Your task to perform on an android device: toggle show notifications on the lock screen Image 0: 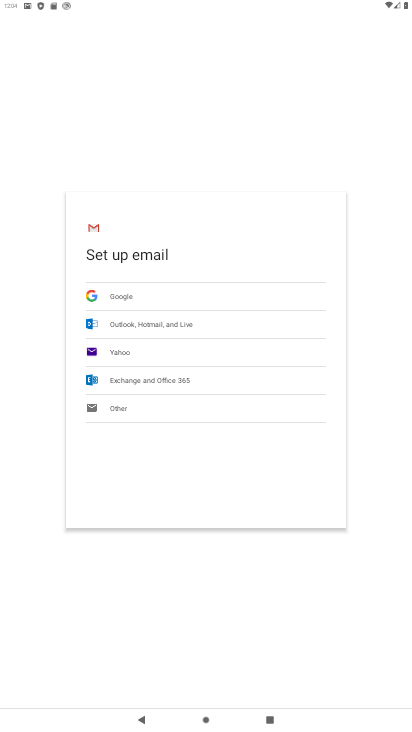
Step 0: press home button
Your task to perform on an android device: toggle show notifications on the lock screen Image 1: 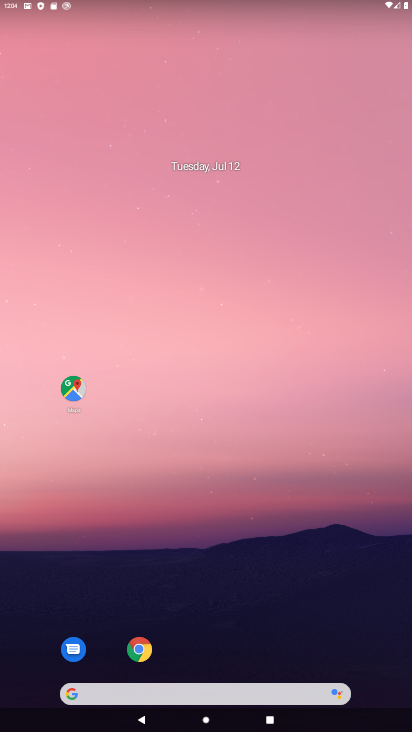
Step 1: drag from (281, 630) to (13, 185)
Your task to perform on an android device: toggle show notifications on the lock screen Image 2: 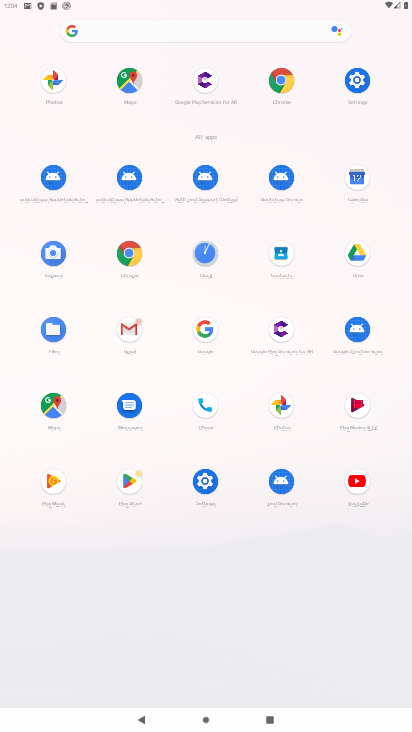
Step 2: click (352, 80)
Your task to perform on an android device: toggle show notifications on the lock screen Image 3: 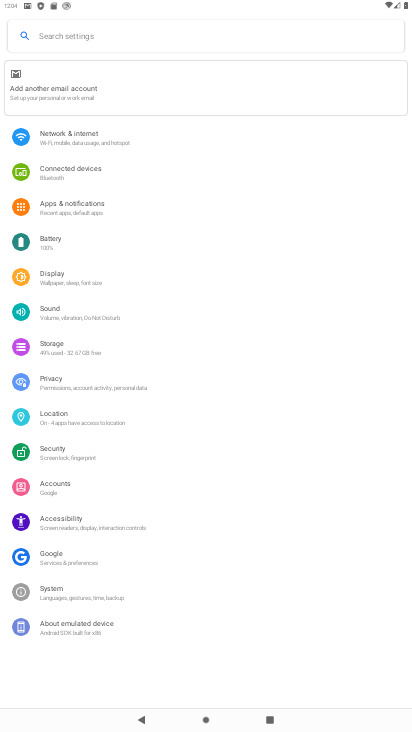
Step 3: click (69, 200)
Your task to perform on an android device: toggle show notifications on the lock screen Image 4: 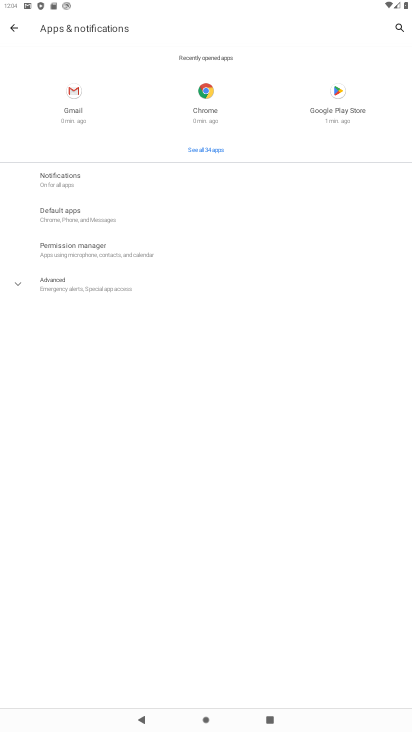
Step 4: click (70, 185)
Your task to perform on an android device: toggle show notifications on the lock screen Image 5: 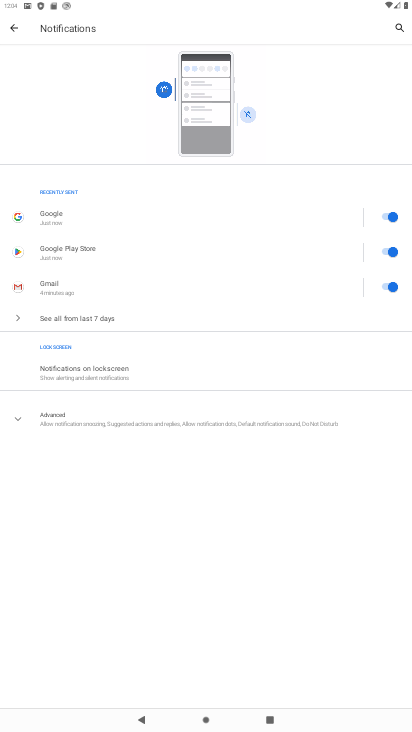
Step 5: click (84, 365)
Your task to perform on an android device: toggle show notifications on the lock screen Image 6: 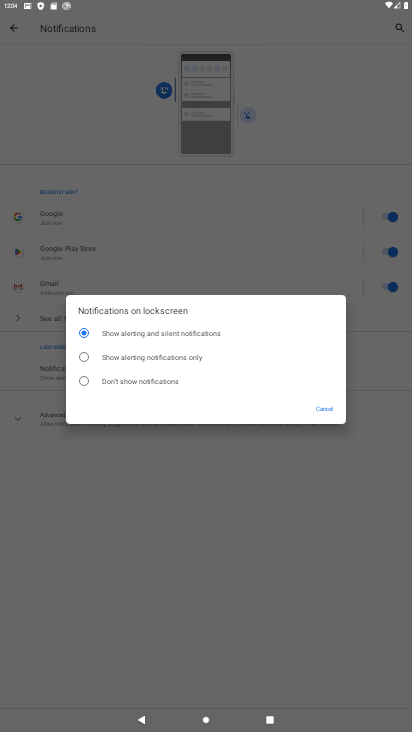
Step 6: click (86, 357)
Your task to perform on an android device: toggle show notifications on the lock screen Image 7: 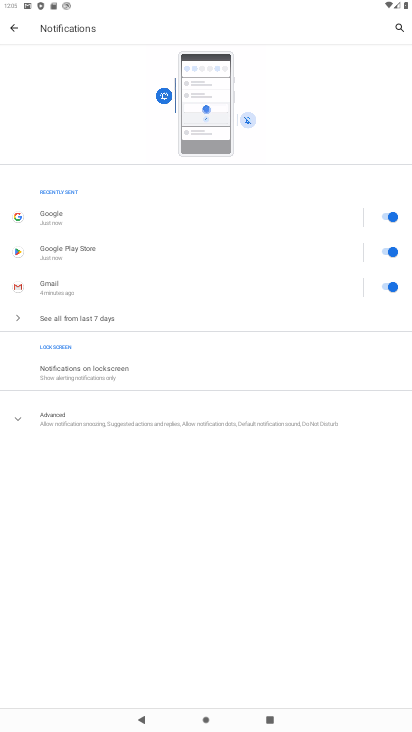
Step 7: click (87, 377)
Your task to perform on an android device: toggle show notifications on the lock screen Image 8: 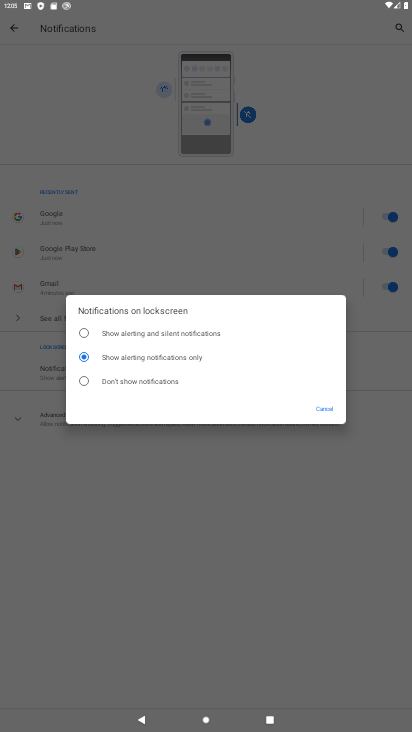
Step 8: task complete